Your task to perform on an android device: change your default location settings in chrome Image 0: 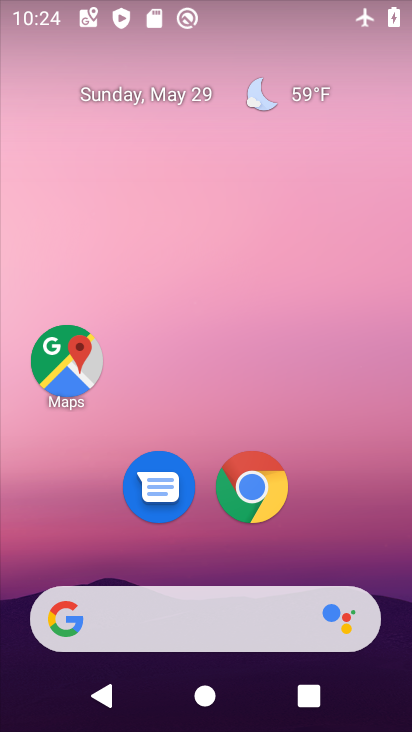
Step 0: click (252, 496)
Your task to perform on an android device: change your default location settings in chrome Image 1: 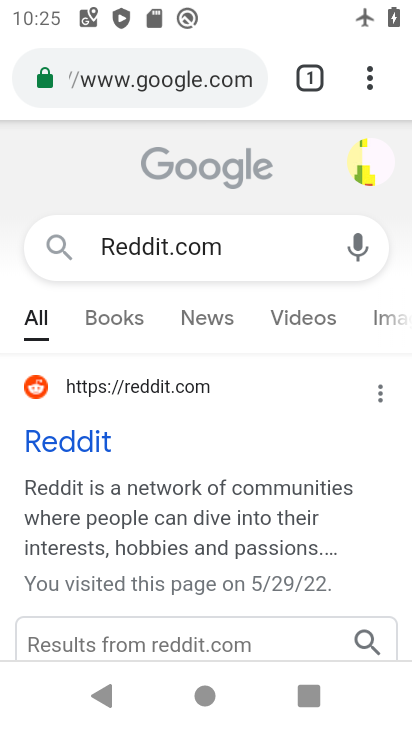
Step 1: click (369, 71)
Your task to perform on an android device: change your default location settings in chrome Image 2: 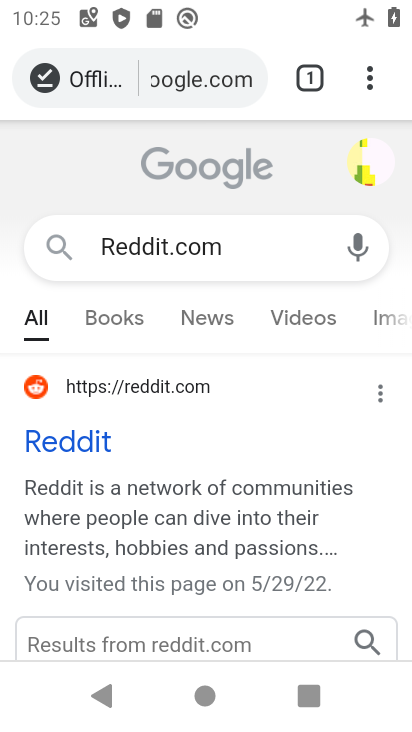
Step 2: click (363, 77)
Your task to perform on an android device: change your default location settings in chrome Image 3: 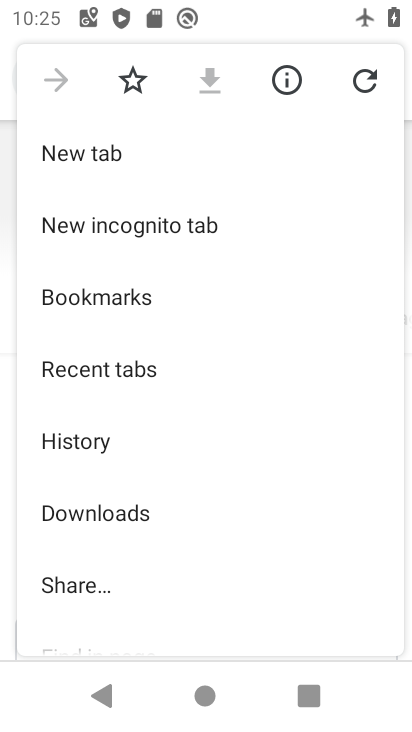
Step 3: drag from (238, 582) to (229, 255)
Your task to perform on an android device: change your default location settings in chrome Image 4: 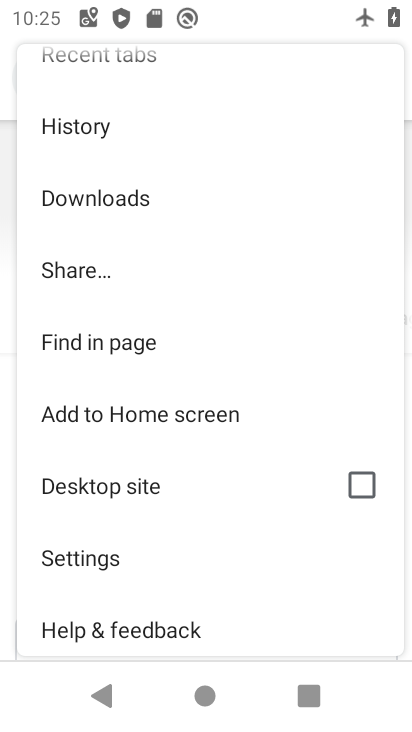
Step 4: click (83, 561)
Your task to perform on an android device: change your default location settings in chrome Image 5: 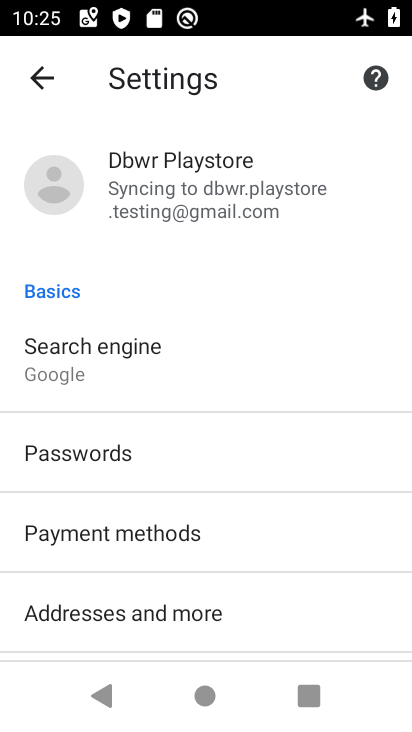
Step 5: drag from (312, 625) to (315, 312)
Your task to perform on an android device: change your default location settings in chrome Image 6: 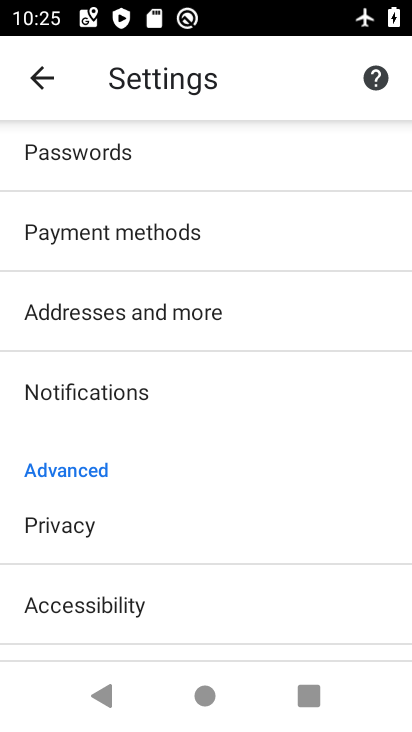
Step 6: drag from (249, 586) to (243, 376)
Your task to perform on an android device: change your default location settings in chrome Image 7: 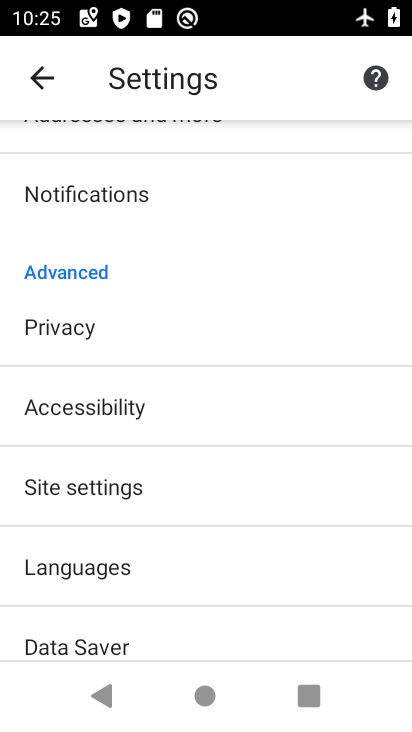
Step 7: drag from (349, 589) to (330, 338)
Your task to perform on an android device: change your default location settings in chrome Image 8: 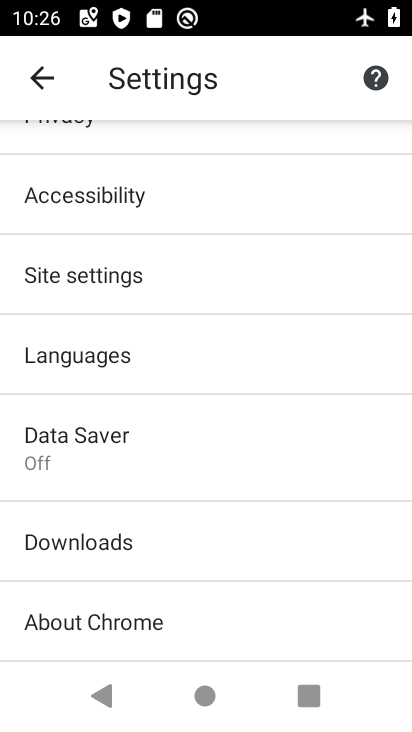
Step 8: click (92, 277)
Your task to perform on an android device: change your default location settings in chrome Image 9: 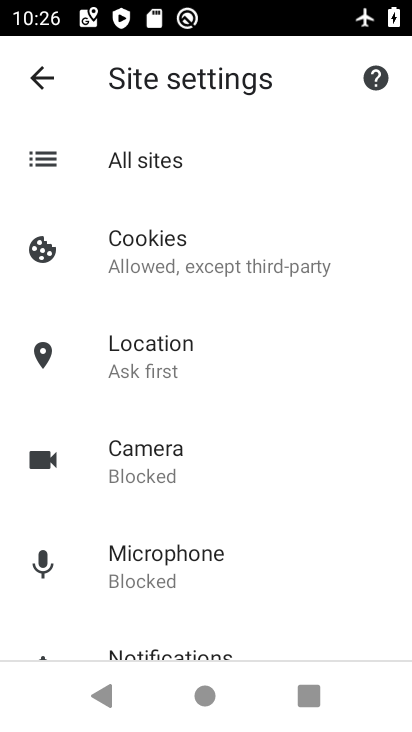
Step 9: click (130, 366)
Your task to perform on an android device: change your default location settings in chrome Image 10: 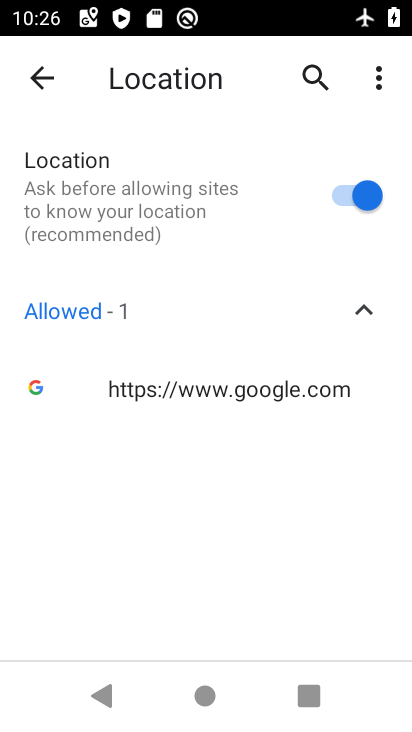
Step 10: click (339, 194)
Your task to perform on an android device: change your default location settings in chrome Image 11: 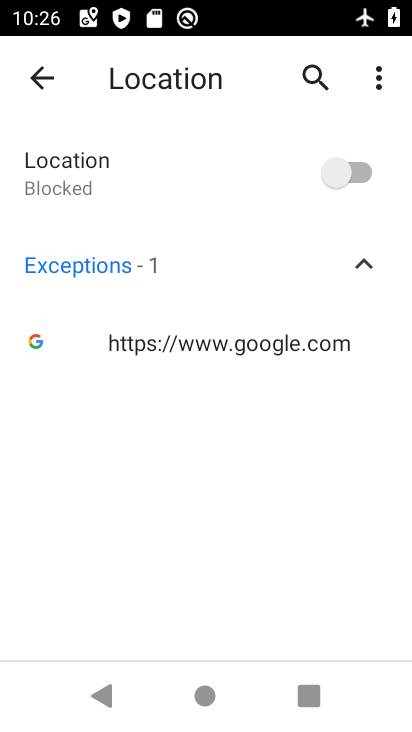
Step 11: task complete